Your task to perform on an android device: Open Google Maps Image 0: 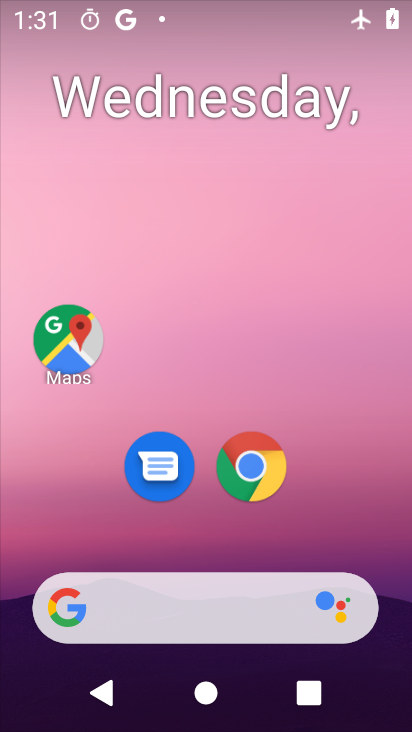
Step 0: click (86, 370)
Your task to perform on an android device: Open Google Maps Image 1: 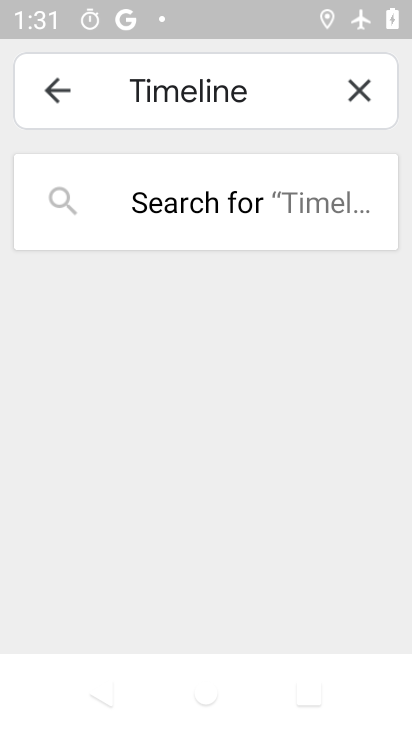
Step 1: task complete